Your task to perform on an android device: Go to network settings Image 0: 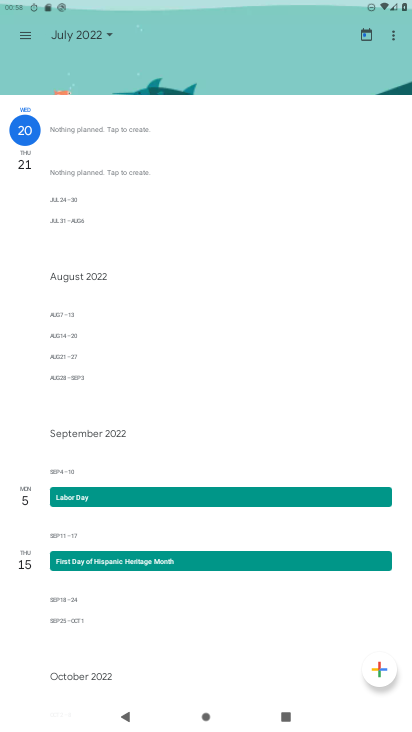
Step 0: press home button
Your task to perform on an android device: Go to network settings Image 1: 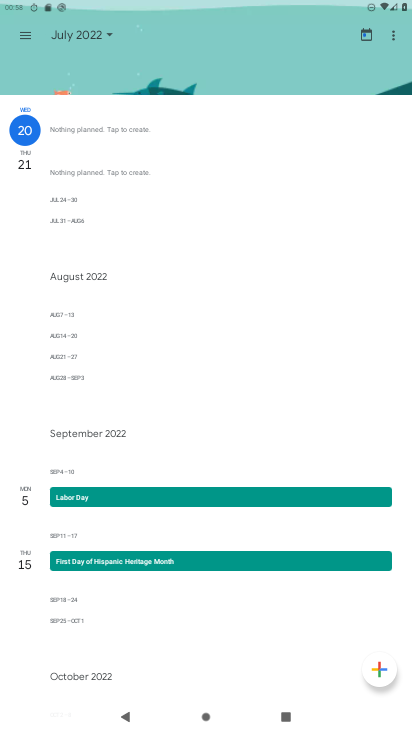
Step 1: drag from (98, 581) to (297, 157)
Your task to perform on an android device: Go to network settings Image 2: 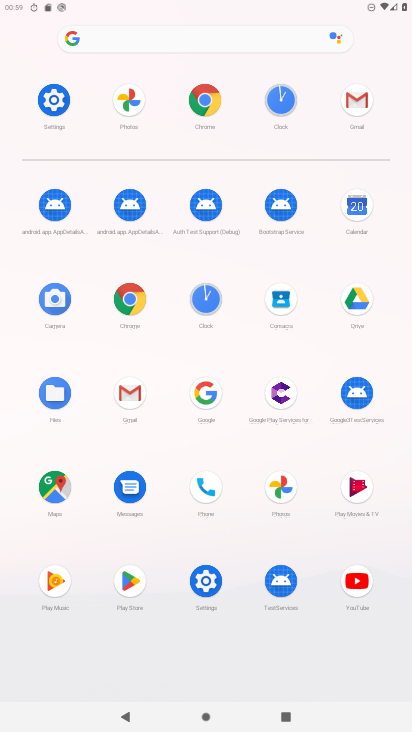
Step 2: click (195, 572)
Your task to perform on an android device: Go to network settings Image 3: 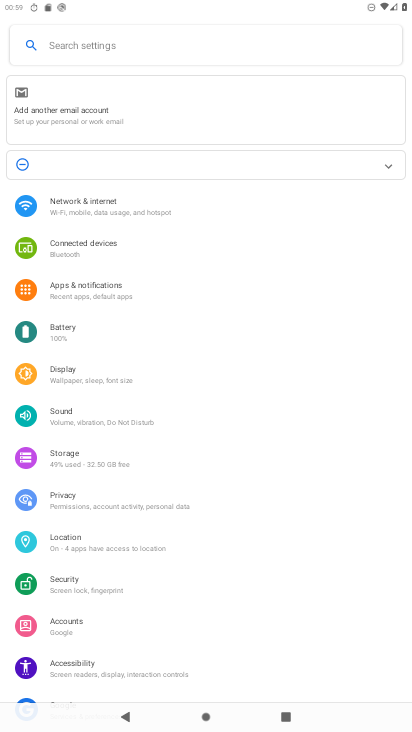
Step 3: click (97, 205)
Your task to perform on an android device: Go to network settings Image 4: 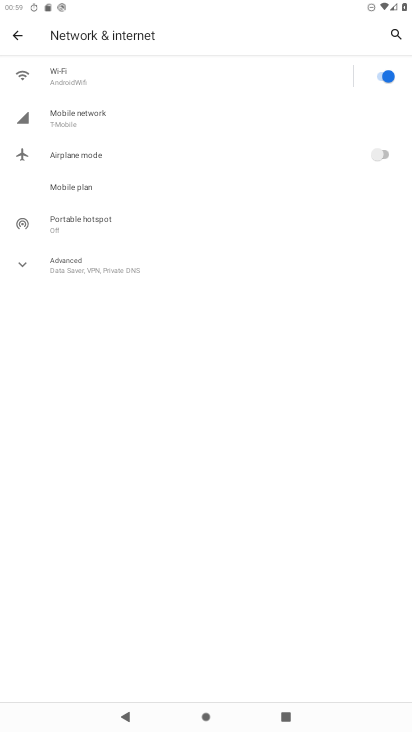
Step 4: click (175, 421)
Your task to perform on an android device: Go to network settings Image 5: 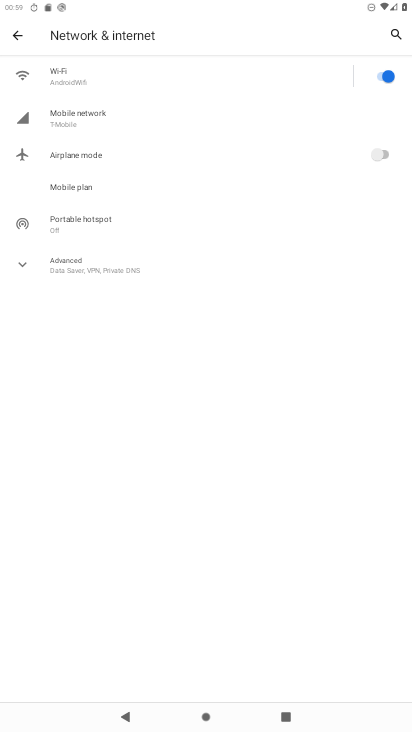
Step 5: task complete